Your task to perform on an android device: turn off airplane mode Image 0: 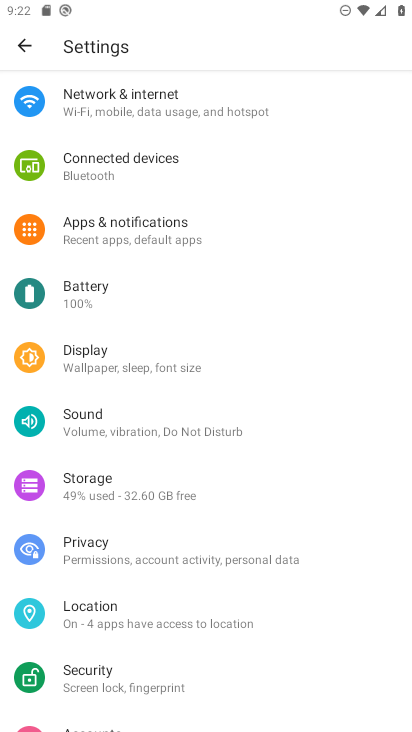
Step 0: press home button
Your task to perform on an android device: turn off airplane mode Image 1: 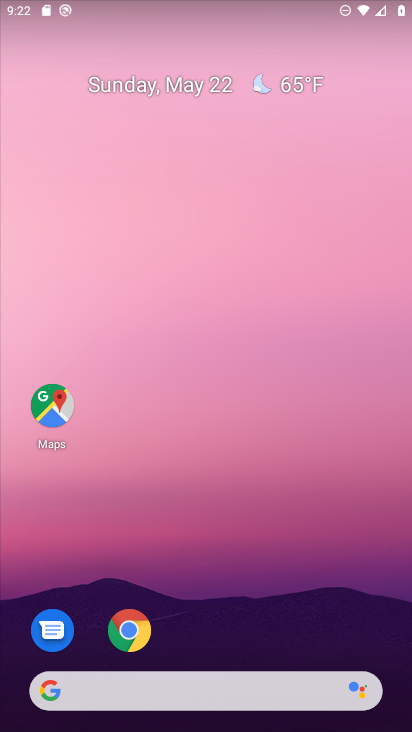
Step 1: drag from (181, 689) to (298, 164)
Your task to perform on an android device: turn off airplane mode Image 2: 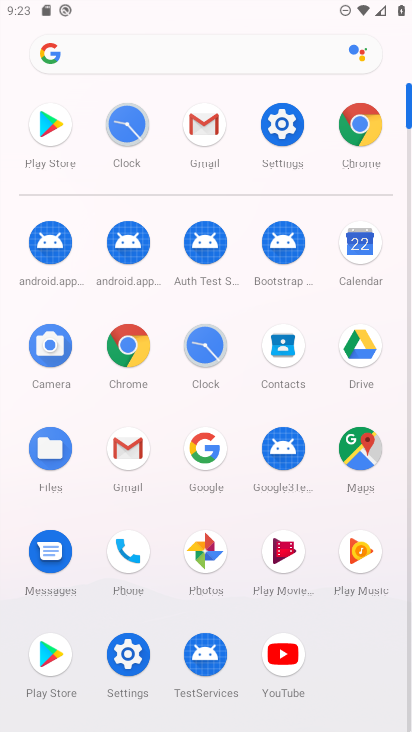
Step 2: click (295, 130)
Your task to perform on an android device: turn off airplane mode Image 3: 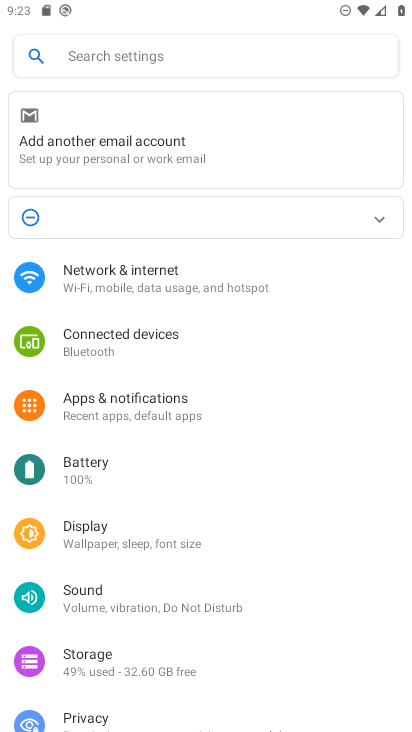
Step 3: click (201, 292)
Your task to perform on an android device: turn off airplane mode Image 4: 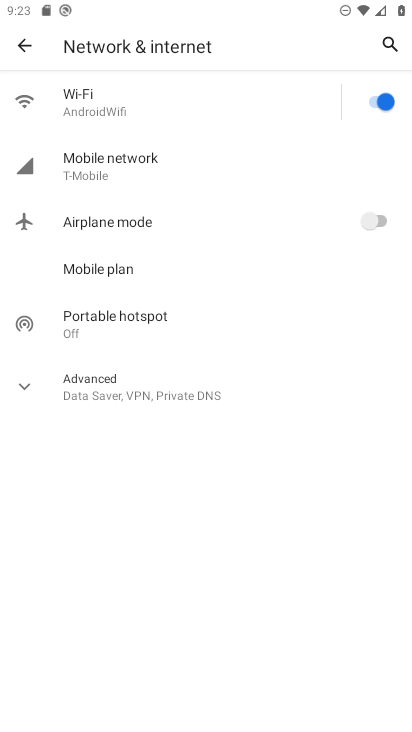
Step 4: task complete